Your task to perform on an android device: Open calendar and show me the fourth week of next month Image 0: 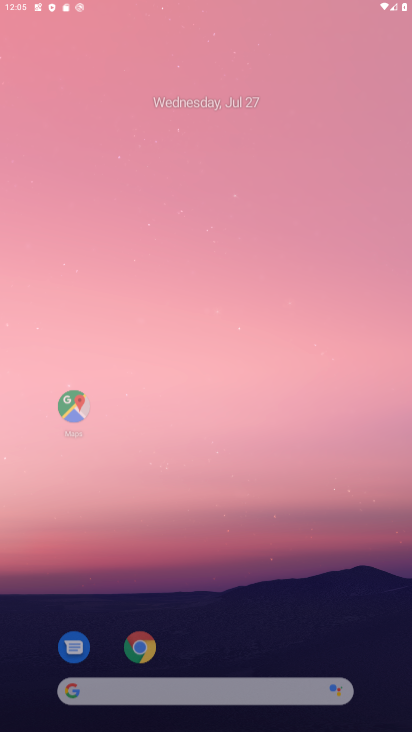
Step 0: press home button
Your task to perform on an android device: Open calendar and show me the fourth week of next month Image 1: 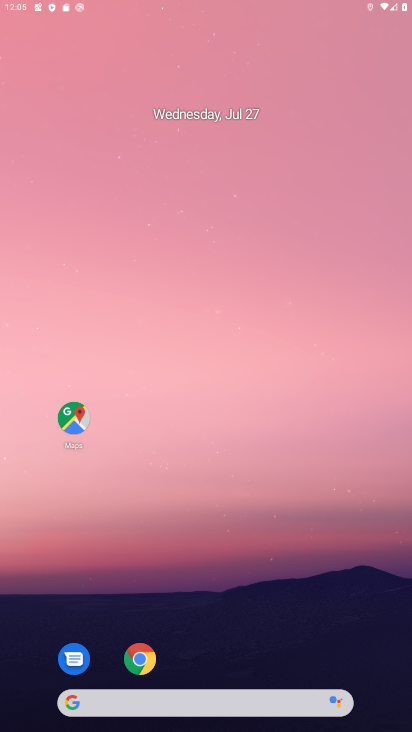
Step 1: drag from (226, 652) to (269, 168)
Your task to perform on an android device: Open calendar and show me the fourth week of next month Image 2: 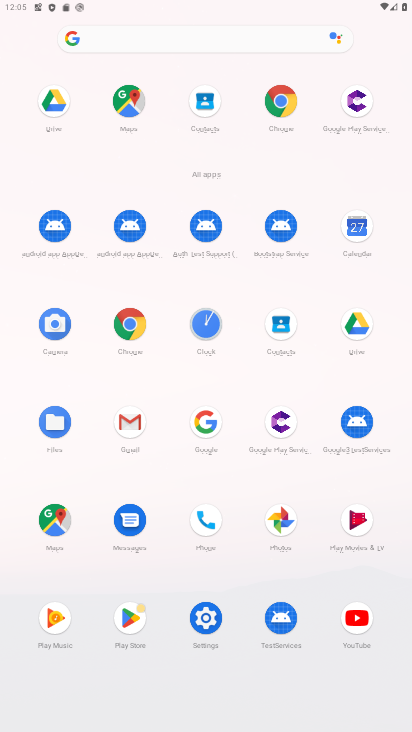
Step 2: click (354, 223)
Your task to perform on an android device: Open calendar and show me the fourth week of next month Image 3: 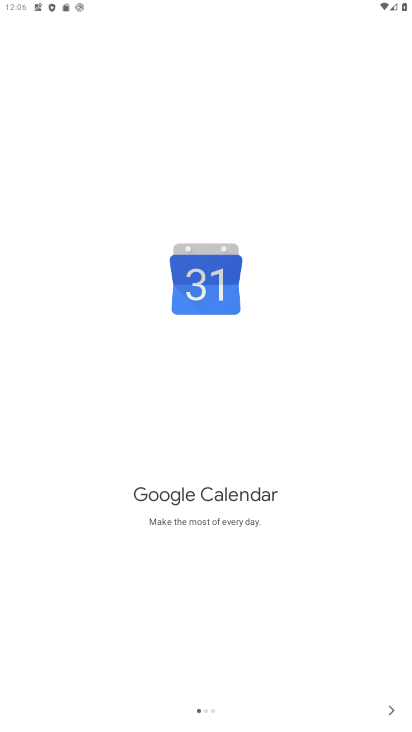
Step 3: click (391, 708)
Your task to perform on an android device: Open calendar and show me the fourth week of next month Image 4: 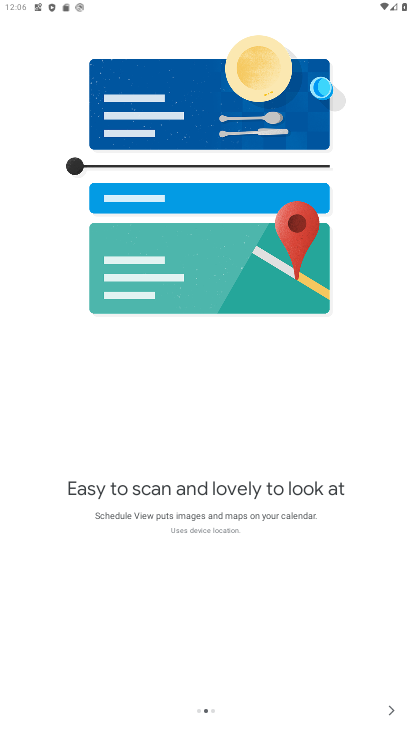
Step 4: click (391, 708)
Your task to perform on an android device: Open calendar and show me the fourth week of next month Image 5: 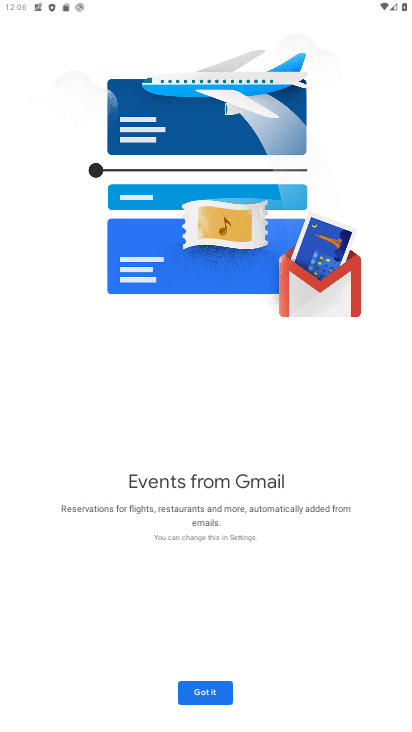
Step 5: click (206, 690)
Your task to perform on an android device: Open calendar and show me the fourth week of next month Image 6: 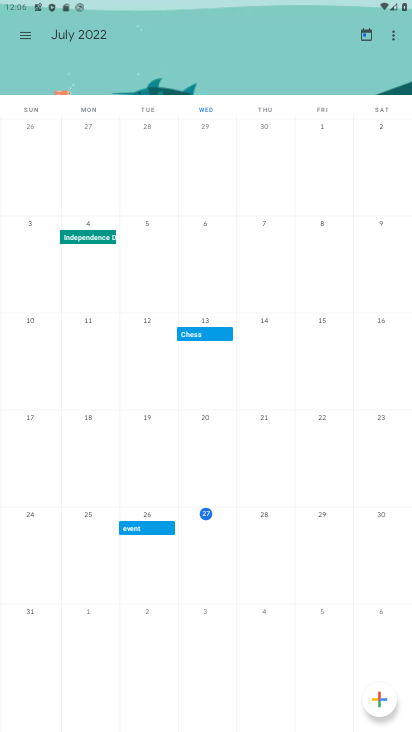
Step 6: task complete